Your task to perform on an android device: What is the news today? Image 0: 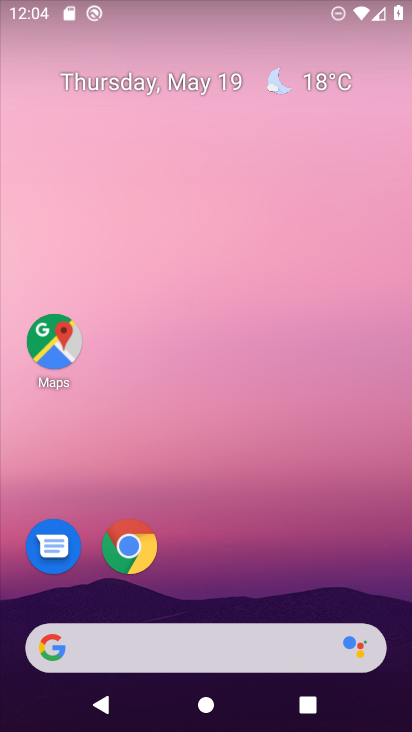
Step 0: drag from (1, 277) to (406, 243)
Your task to perform on an android device: What is the news today? Image 1: 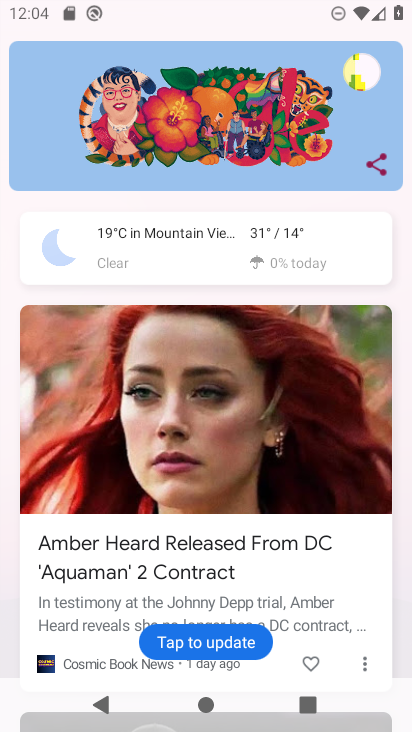
Step 1: task complete